Your task to perform on an android device: delete location history Image 0: 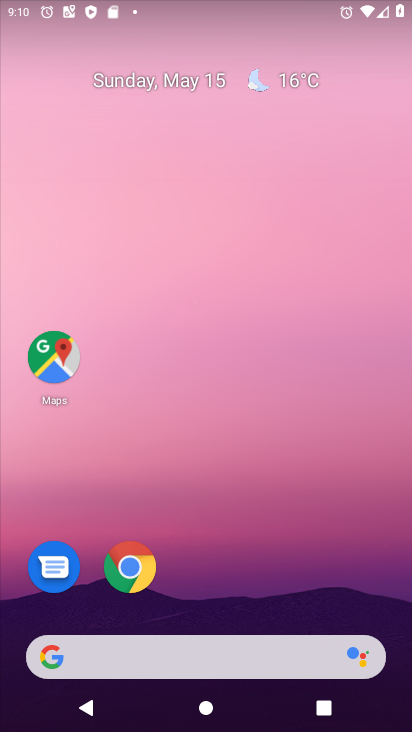
Step 0: click (28, 389)
Your task to perform on an android device: delete location history Image 1: 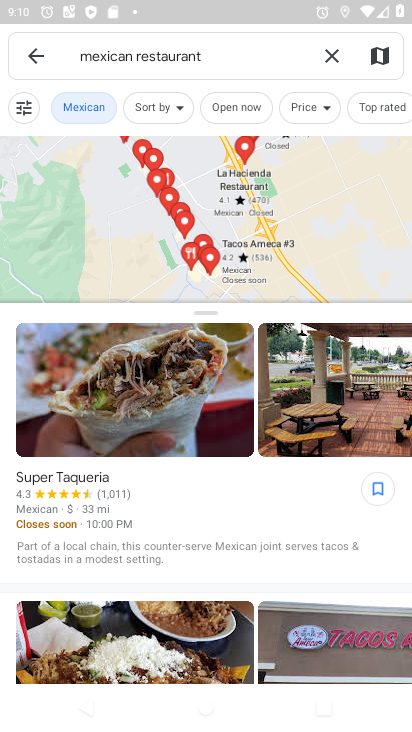
Step 1: click (40, 54)
Your task to perform on an android device: delete location history Image 2: 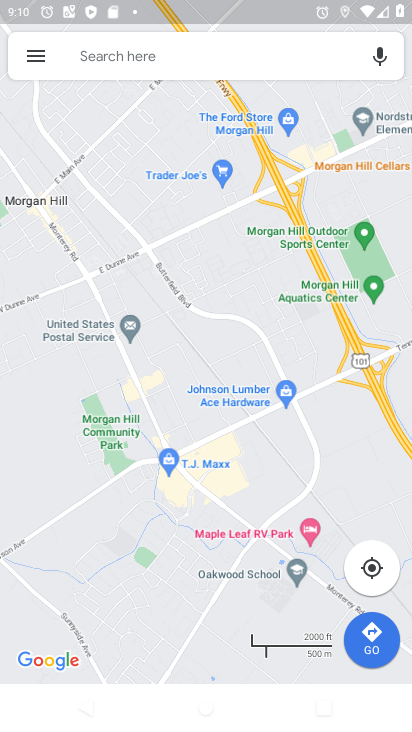
Step 2: click (40, 54)
Your task to perform on an android device: delete location history Image 3: 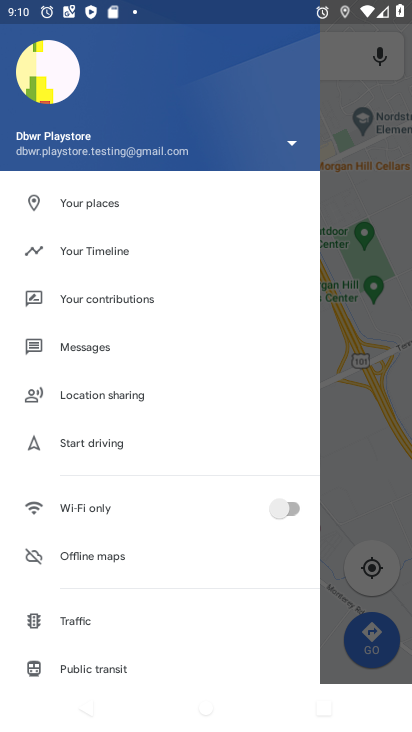
Step 3: click (106, 254)
Your task to perform on an android device: delete location history Image 4: 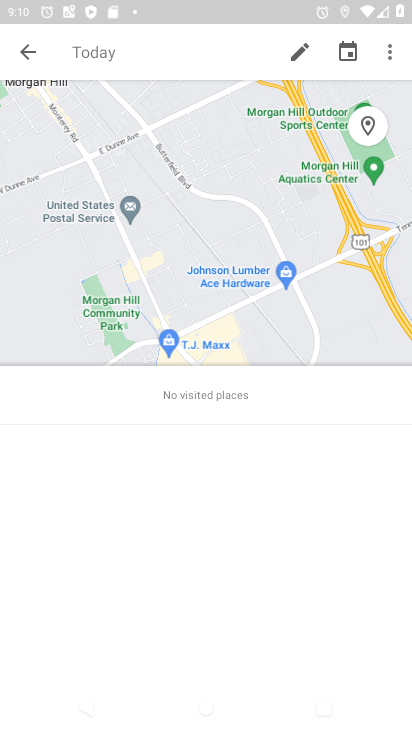
Step 4: click (393, 49)
Your task to perform on an android device: delete location history Image 5: 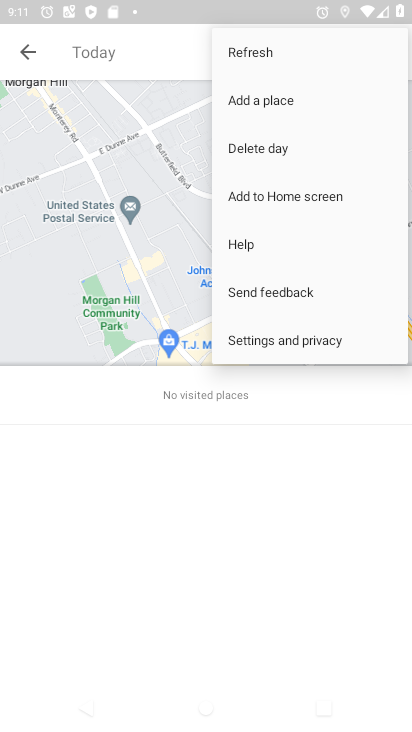
Step 5: click (290, 340)
Your task to perform on an android device: delete location history Image 6: 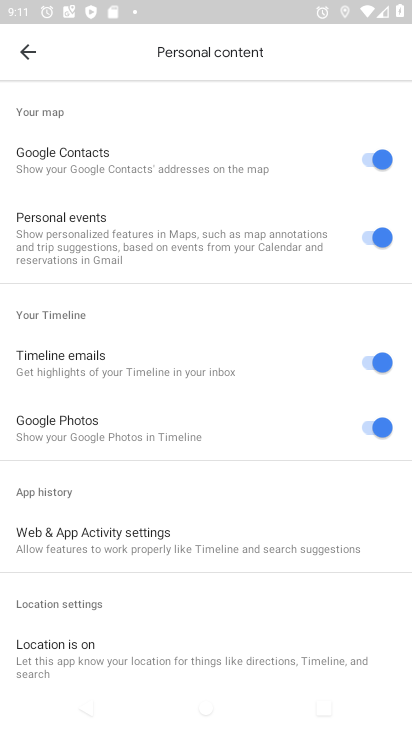
Step 6: drag from (147, 620) to (275, 235)
Your task to perform on an android device: delete location history Image 7: 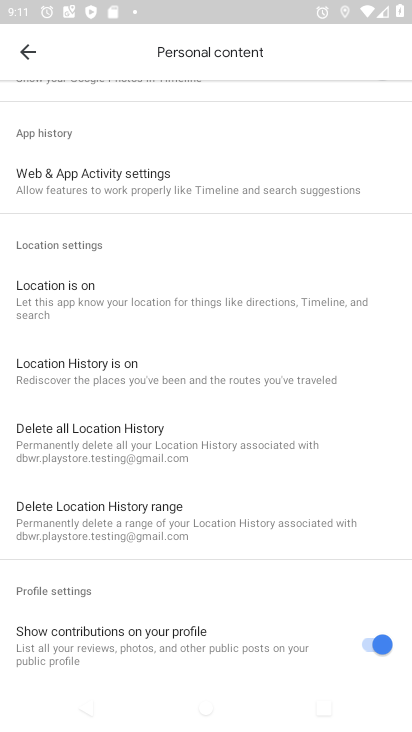
Step 7: click (139, 454)
Your task to perform on an android device: delete location history Image 8: 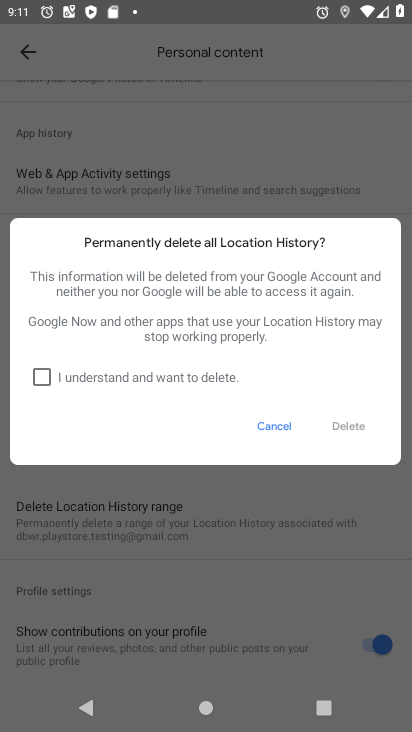
Step 8: click (155, 378)
Your task to perform on an android device: delete location history Image 9: 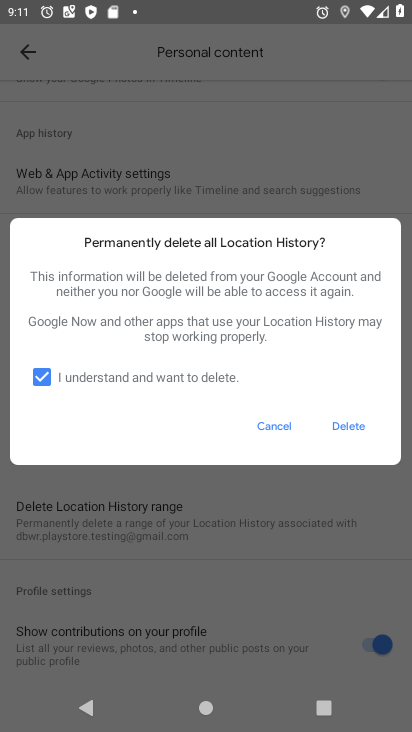
Step 9: click (347, 415)
Your task to perform on an android device: delete location history Image 10: 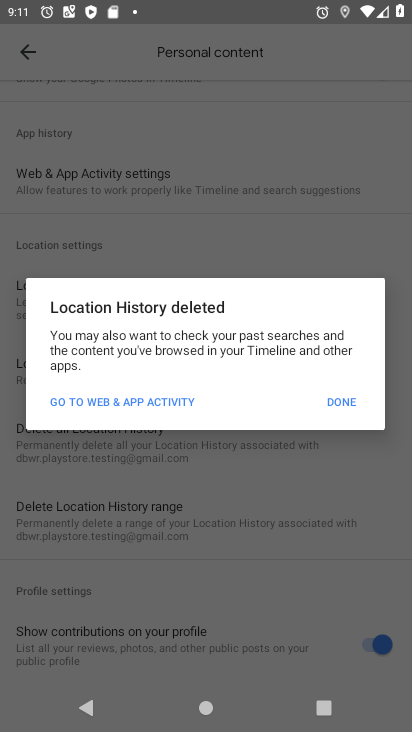
Step 10: task complete